Your task to perform on an android device: Open privacy settings Image 0: 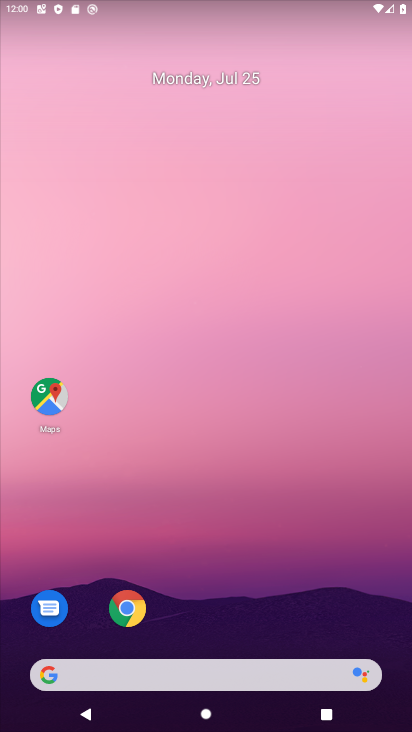
Step 0: drag from (296, 612) to (234, 4)
Your task to perform on an android device: Open privacy settings Image 1: 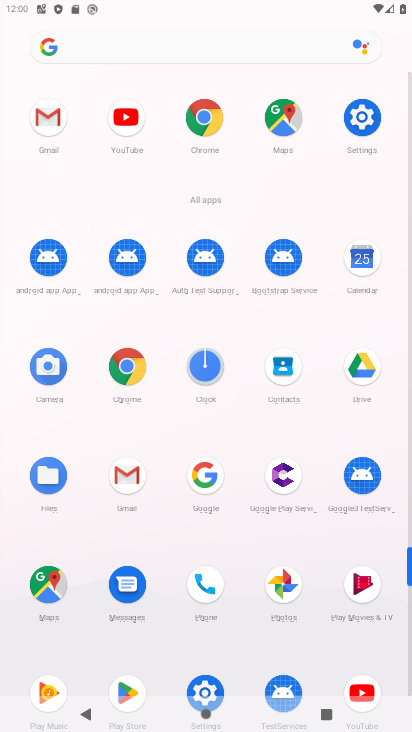
Step 1: click (361, 130)
Your task to perform on an android device: Open privacy settings Image 2: 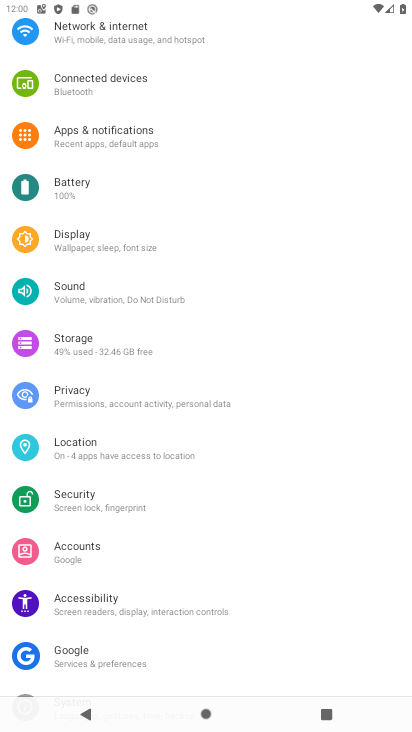
Step 2: click (93, 406)
Your task to perform on an android device: Open privacy settings Image 3: 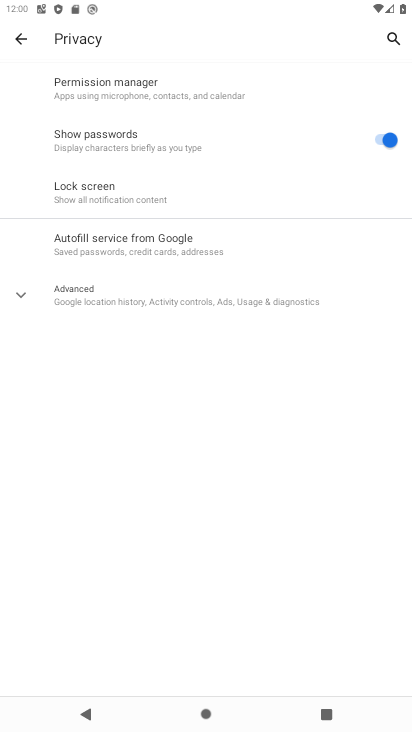
Step 3: task complete